Your task to perform on an android device: Go to privacy settings Image 0: 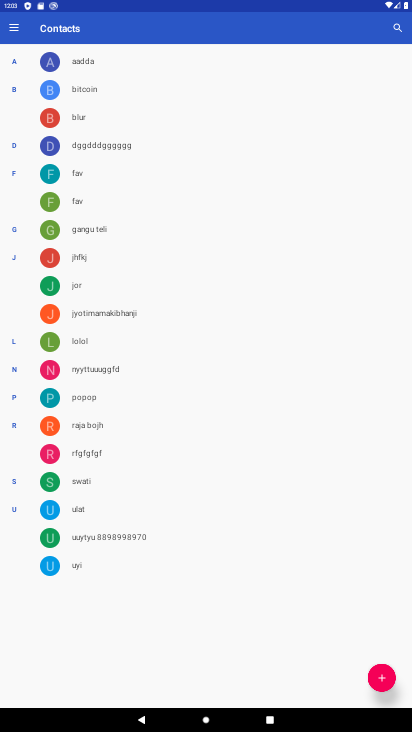
Step 0: press home button
Your task to perform on an android device: Go to privacy settings Image 1: 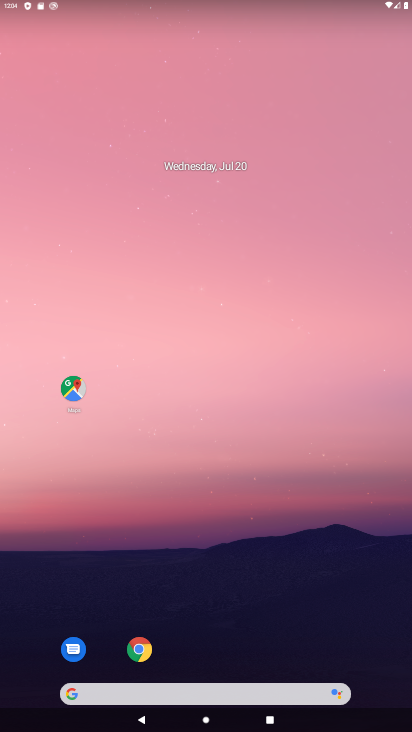
Step 1: drag from (274, 646) to (184, 74)
Your task to perform on an android device: Go to privacy settings Image 2: 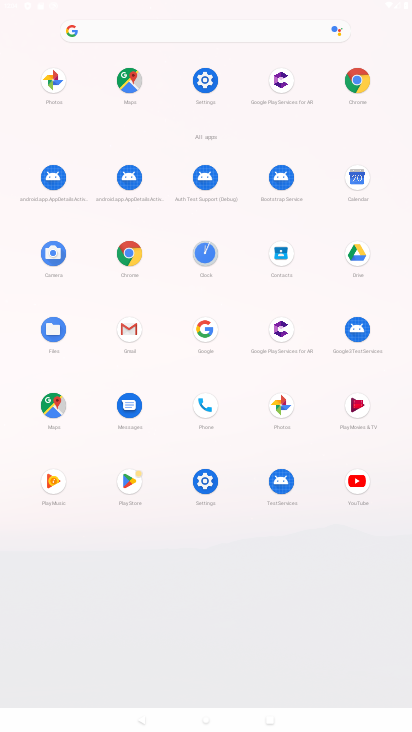
Step 2: click (205, 83)
Your task to perform on an android device: Go to privacy settings Image 3: 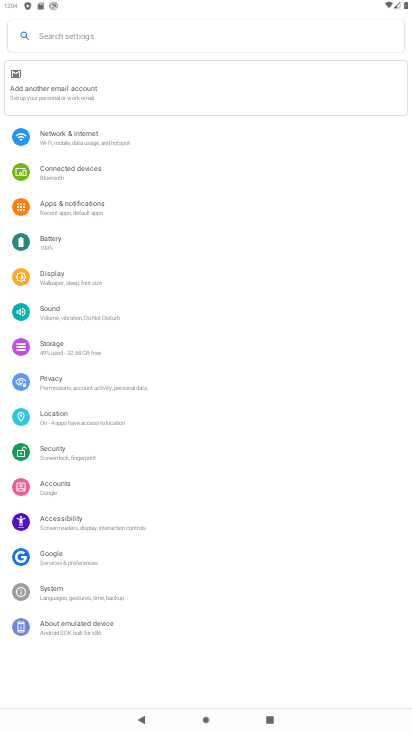
Step 3: click (78, 384)
Your task to perform on an android device: Go to privacy settings Image 4: 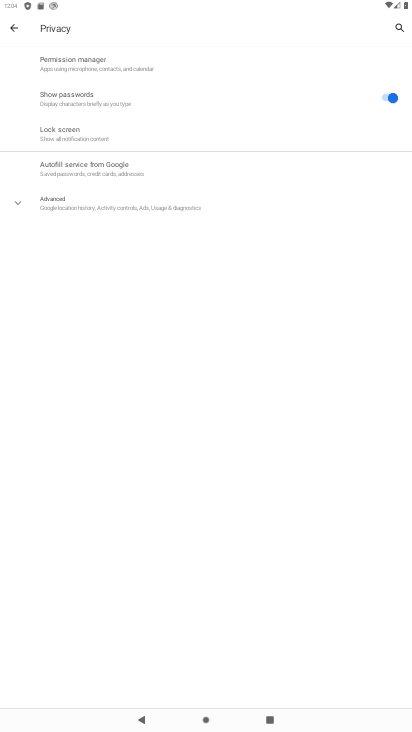
Step 4: task complete